Your task to perform on an android device: Open Google Chrome and open the bookmarks view Image 0: 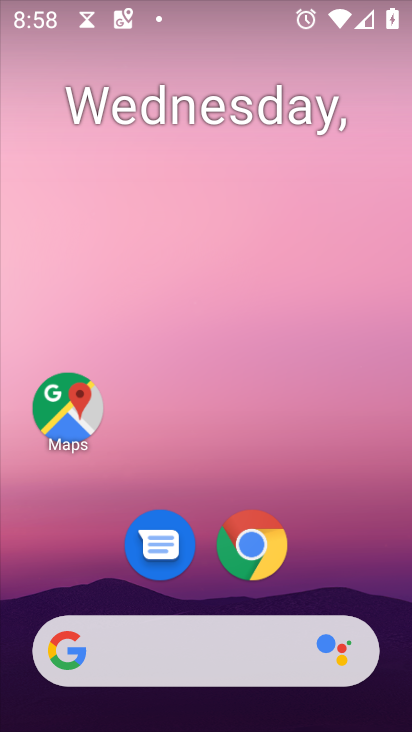
Step 0: press home button
Your task to perform on an android device: Open Google Chrome and open the bookmarks view Image 1: 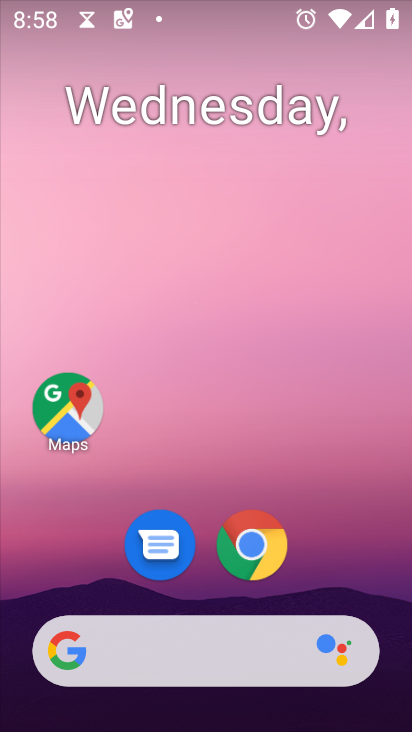
Step 1: click (259, 565)
Your task to perform on an android device: Open Google Chrome and open the bookmarks view Image 2: 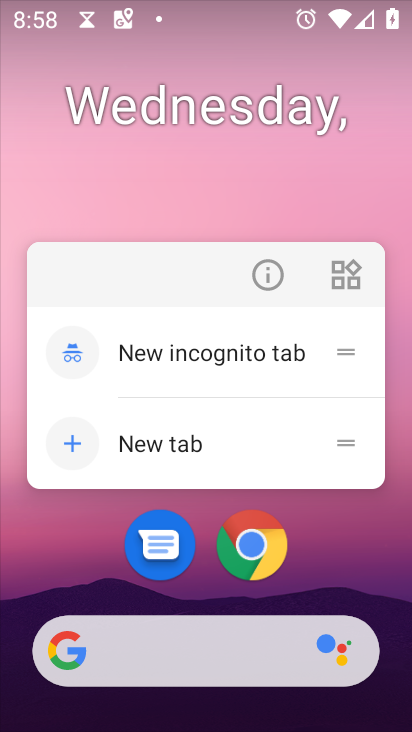
Step 2: click (262, 543)
Your task to perform on an android device: Open Google Chrome and open the bookmarks view Image 3: 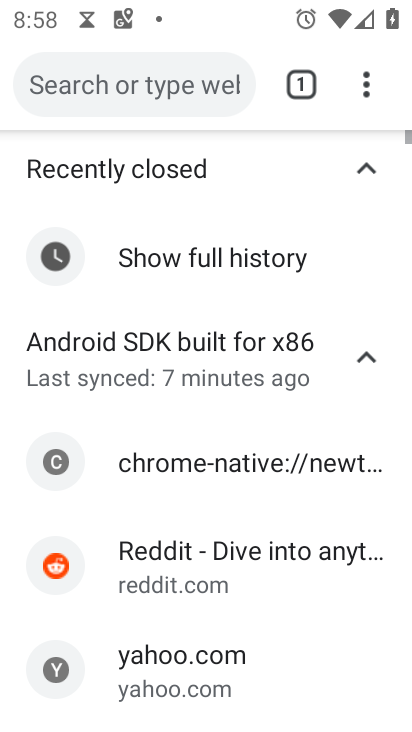
Step 3: task complete